Your task to perform on an android device: Open network settings Image 0: 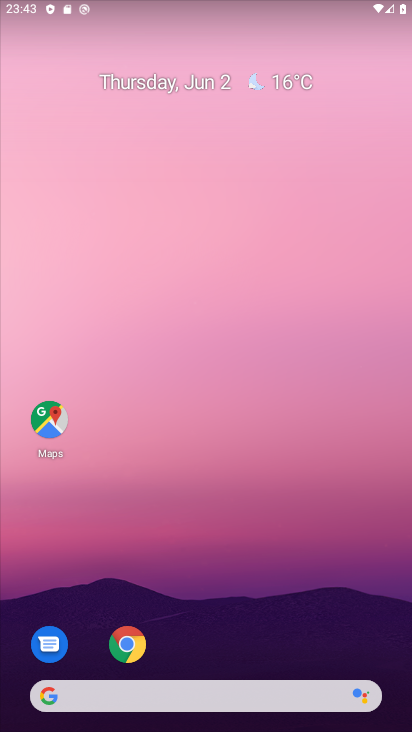
Step 0: drag from (186, 575) to (186, 372)
Your task to perform on an android device: Open network settings Image 1: 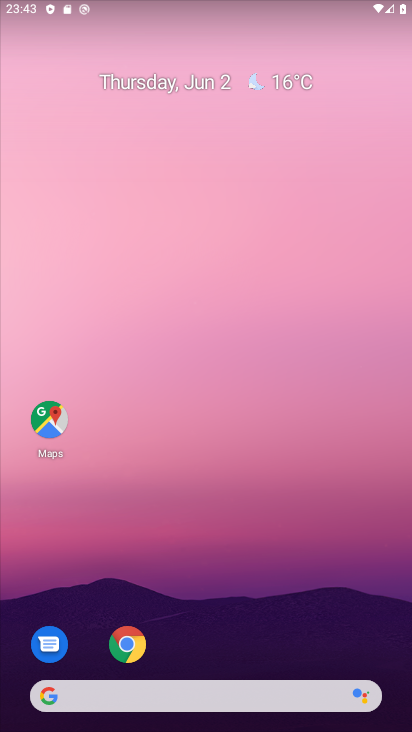
Step 1: drag from (202, 668) to (219, 268)
Your task to perform on an android device: Open network settings Image 2: 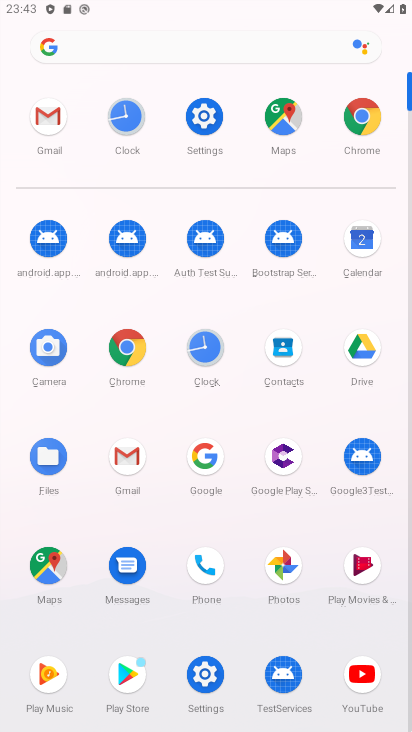
Step 2: click (214, 116)
Your task to perform on an android device: Open network settings Image 3: 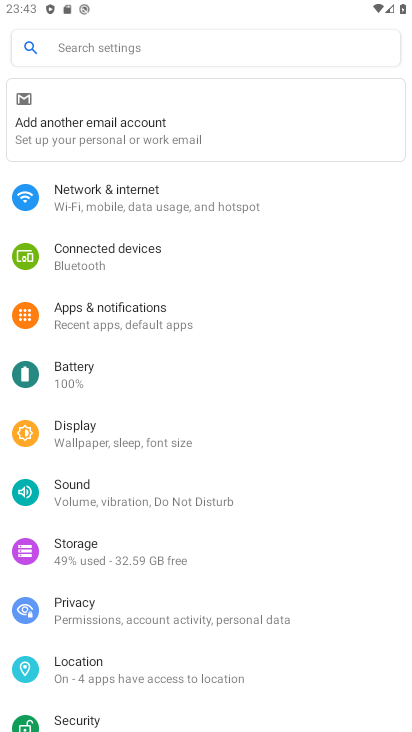
Step 3: click (105, 203)
Your task to perform on an android device: Open network settings Image 4: 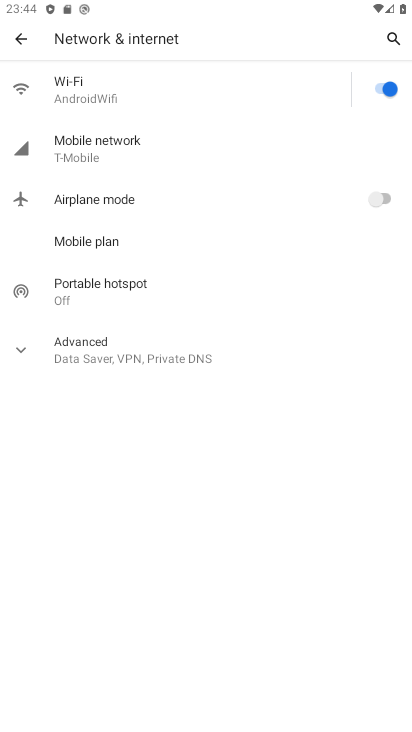
Step 4: task complete